Your task to perform on an android device: Open Chrome and go to the settings page Image 0: 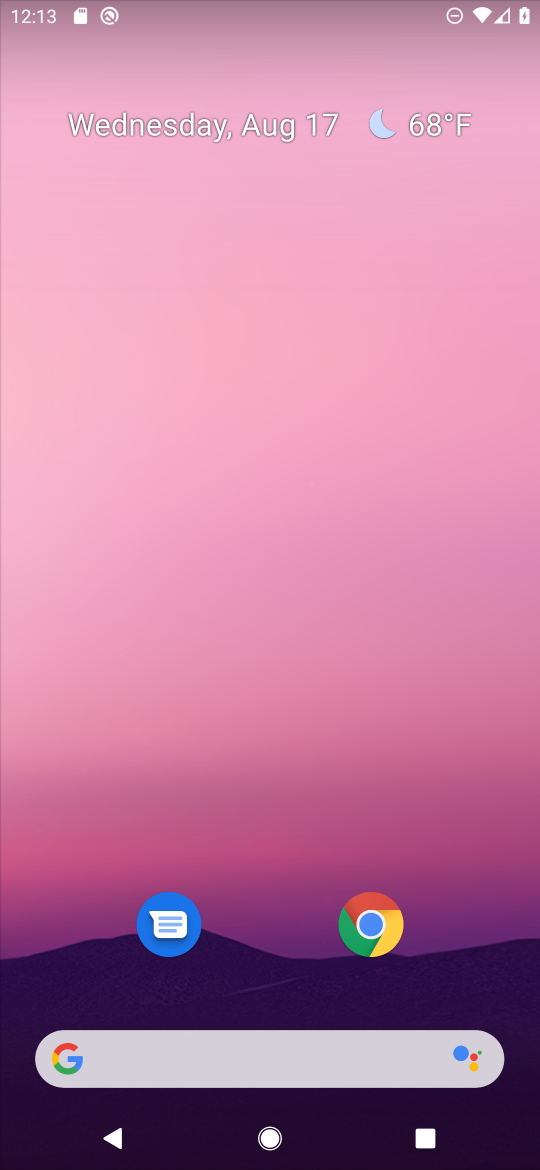
Step 0: click (378, 913)
Your task to perform on an android device: Open Chrome and go to the settings page Image 1: 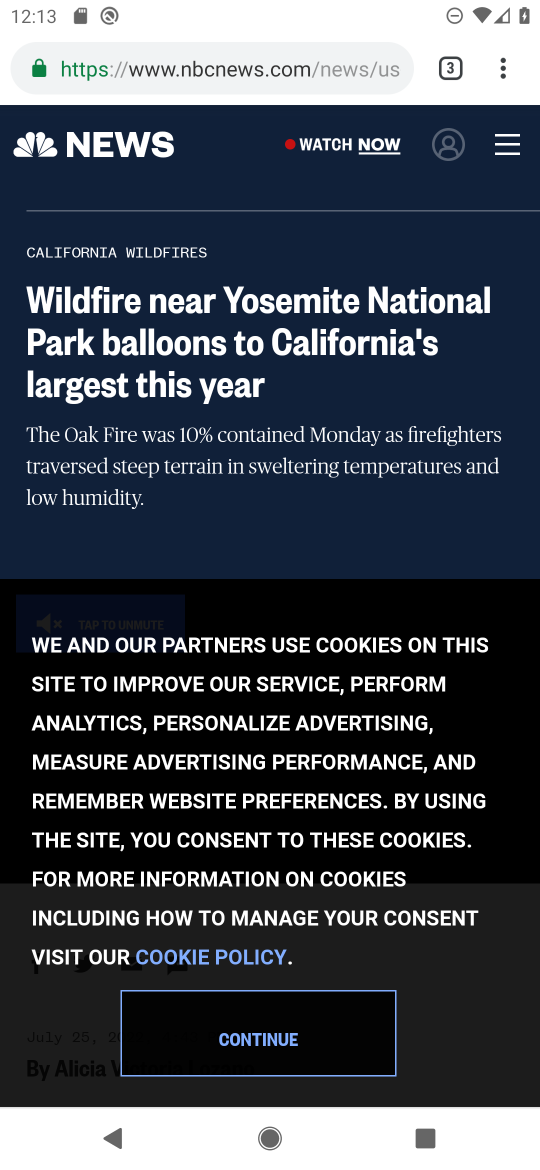
Step 1: click (518, 67)
Your task to perform on an android device: Open Chrome and go to the settings page Image 2: 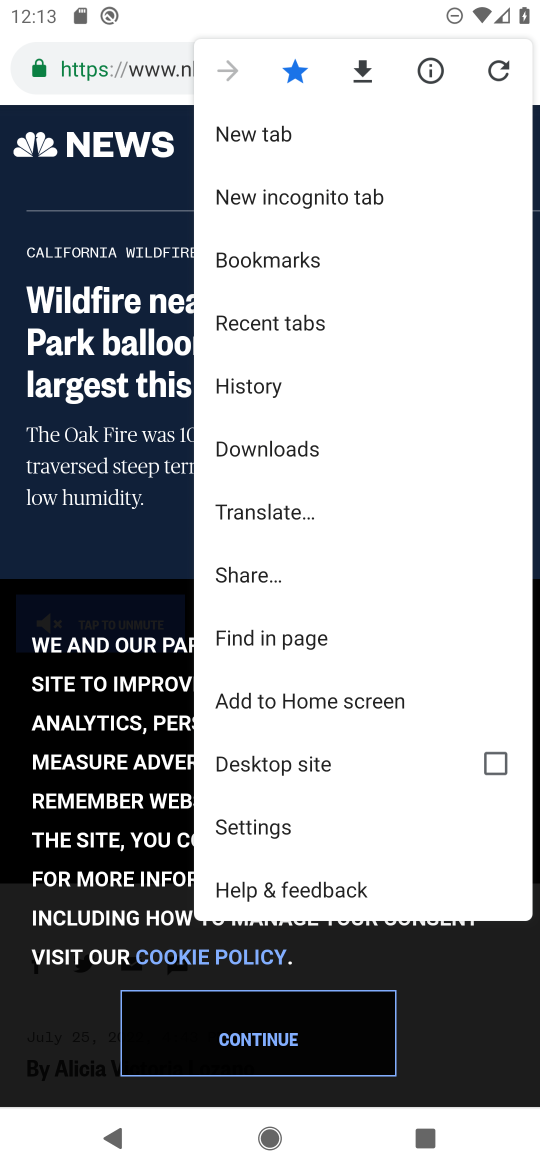
Step 2: click (294, 824)
Your task to perform on an android device: Open Chrome and go to the settings page Image 3: 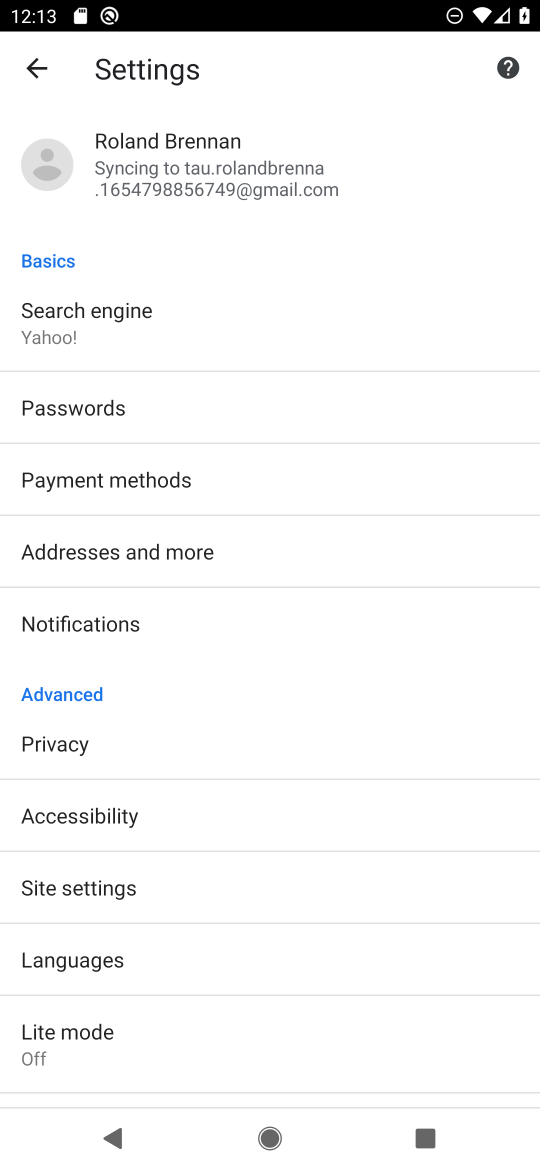
Step 3: task complete